Your task to perform on an android device: set default search engine in the chrome app Image 0: 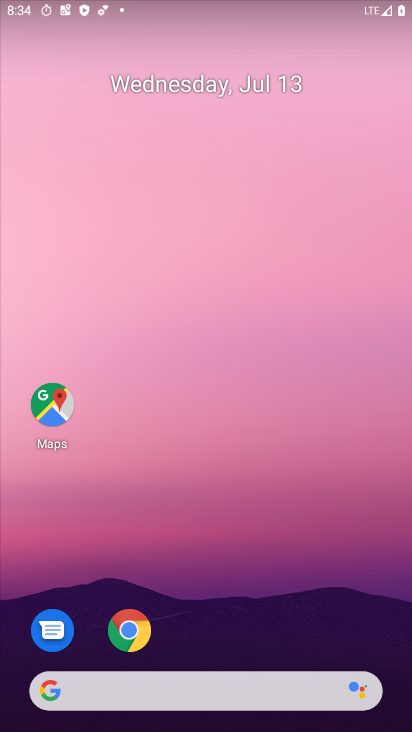
Step 0: drag from (324, 635) to (337, 219)
Your task to perform on an android device: set default search engine in the chrome app Image 1: 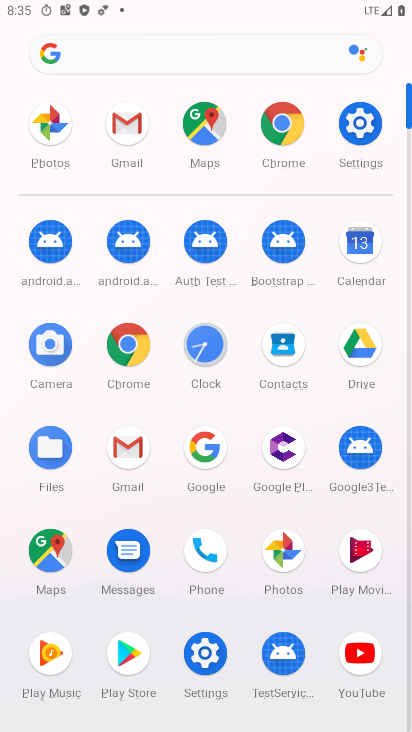
Step 1: click (131, 336)
Your task to perform on an android device: set default search engine in the chrome app Image 2: 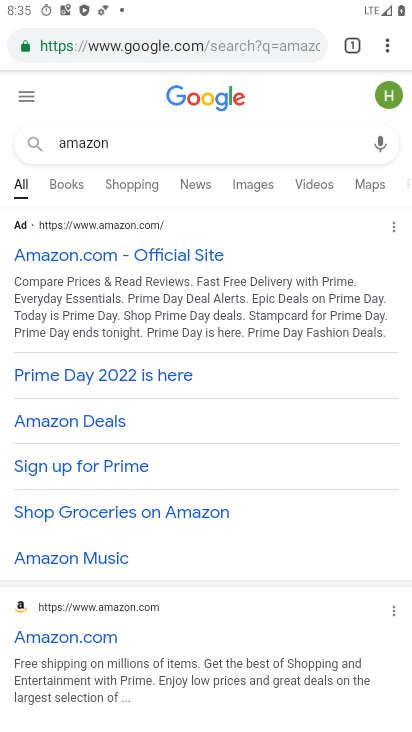
Step 2: click (387, 52)
Your task to perform on an android device: set default search engine in the chrome app Image 3: 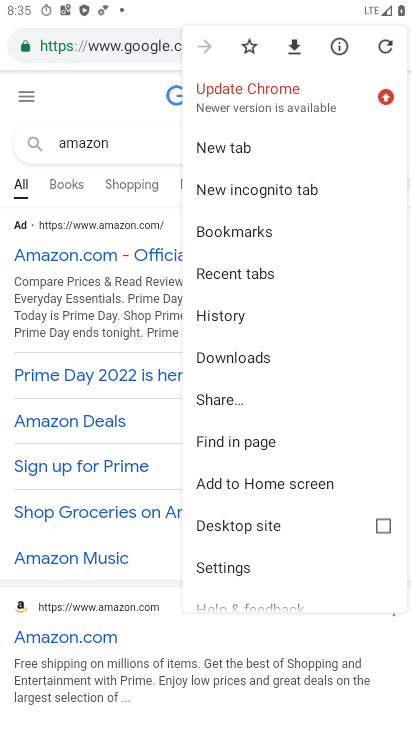
Step 3: click (253, 564)
Your task to perform on an android device: set default search engine in the chrome app Image 4: 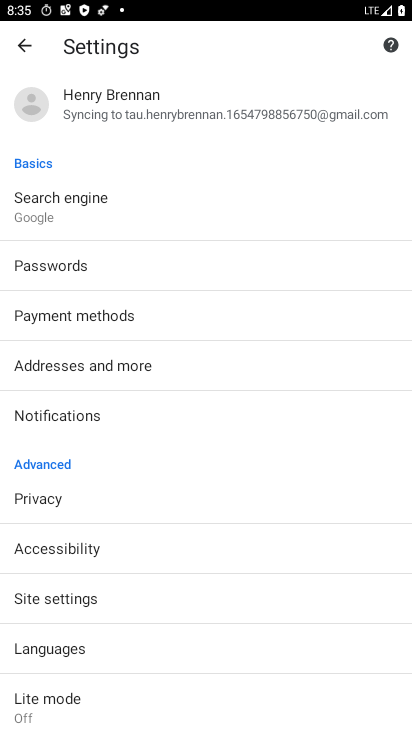
Step 4: drag from (302, 632) to (301, 516)
Your task to perform on an android device: set default search engine in the chrome app Image 5: 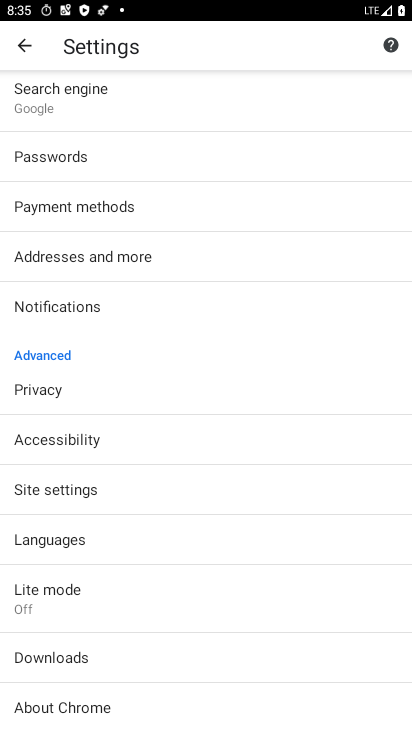
Step 5: drag from (307, 607) to (307, 417)
Your task to perform on an android device: set default search engine in the chrome app Image 6: 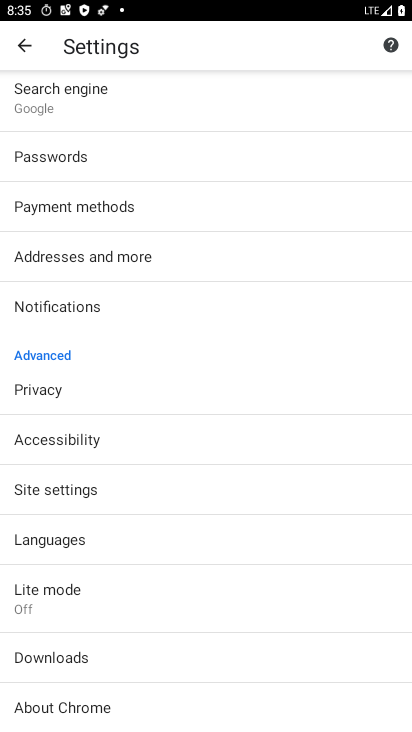
Step 6: drag from (293, 294) to (292, 494)
Your task to perform on an android device: set default search engine in the chrome app Image 7: 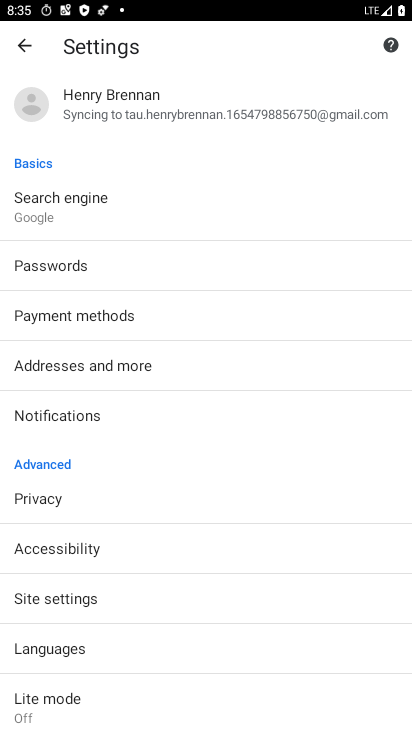
Step 7: click (167, 218)
Your task to perform on an android device: set default search engine in the chrome app Image 8: 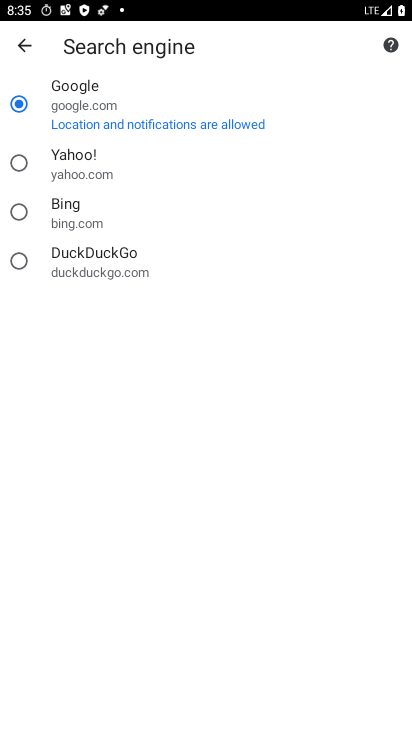
Step 8: click (77, 211)
Your task to perform on an android device: set default search engine in the chrome app Image 9: 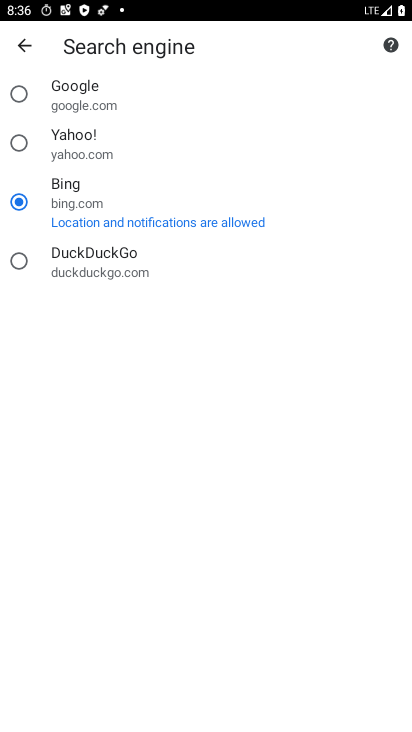
Step 9: task complete